Your task to perform on an android device: Open Yahoo.com Image 0: 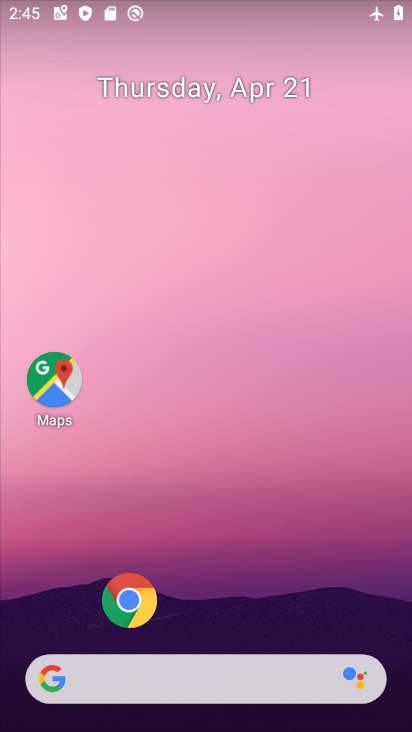
Step 0: drag from (254, 1) to (266, 500)
Your task to perform on an android device: Open Yahoo.com Image 1: 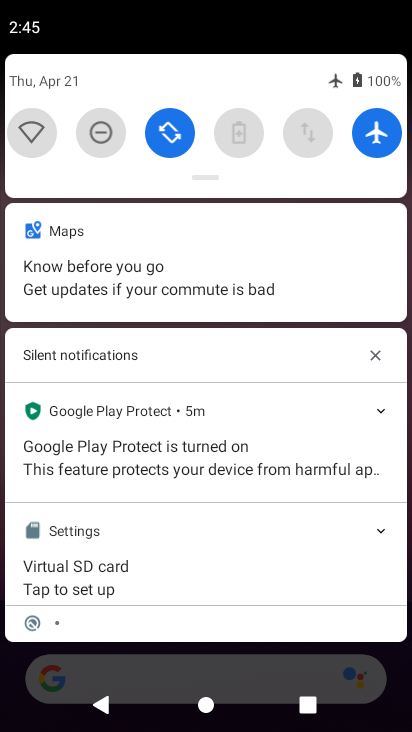
Step 1: click (364, 146)
Your task to perform on an android device: Open Yahoo.com Image 2: 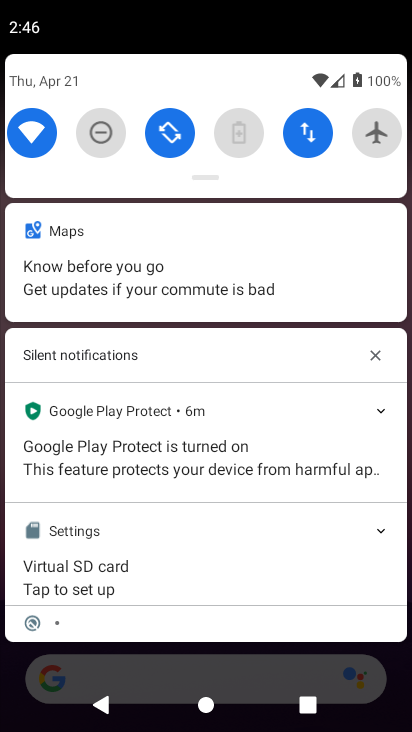
Step 2: press back button
Your task to perform on an android device: Open Yahoo.com Image 3: 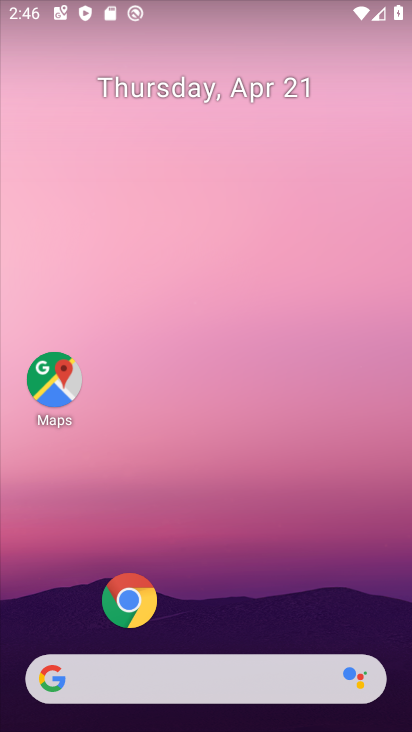
Step 3: click (137, 605)
Your task to perform on an android device: Open Yahoo.com Image 4: 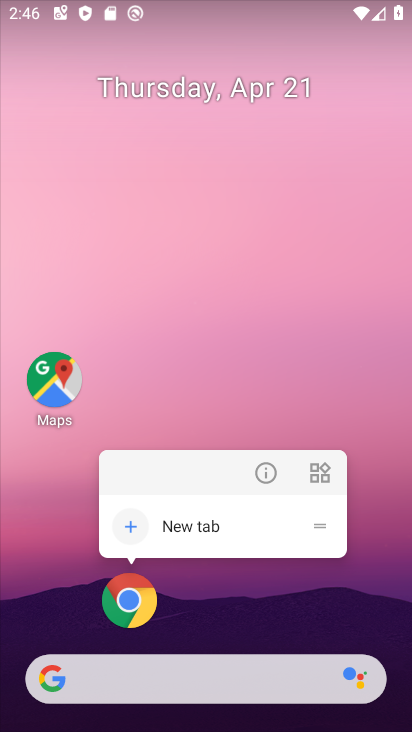
Step 4: click (137, 604)
Your task to perform on an android device: Open Yahoo.com Image 5: 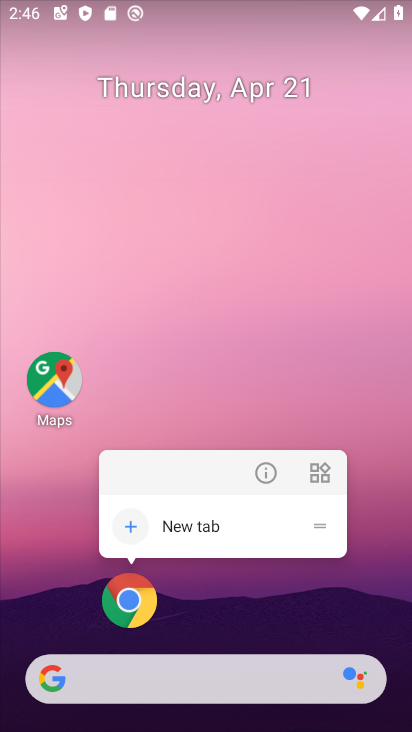
Step 5: click (136, 597)
Your task to perform on an android device: Open Yahoo.com Image 6: 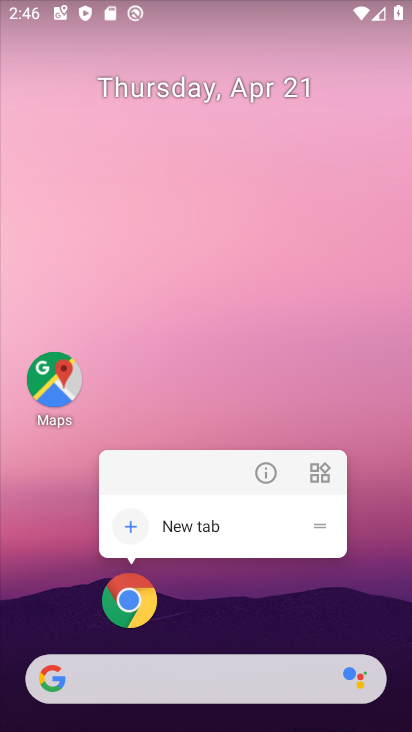
Step 6: click (123, 603)
Your task to perform on an android device: Open Yahoo.com Image 7: 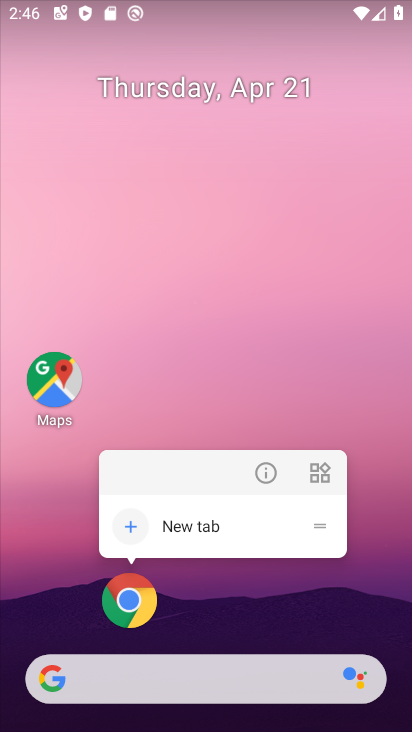
Step 7: click (123, 603)
Your task to perform on an android device: Open Yahoo.com Image 8: 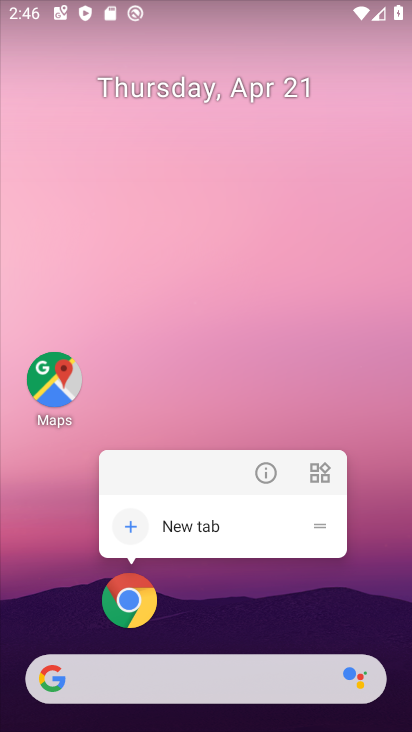
Step 8: click (128, 595)
Your task to perform on an android device: Open Yahoo.com Image 9: 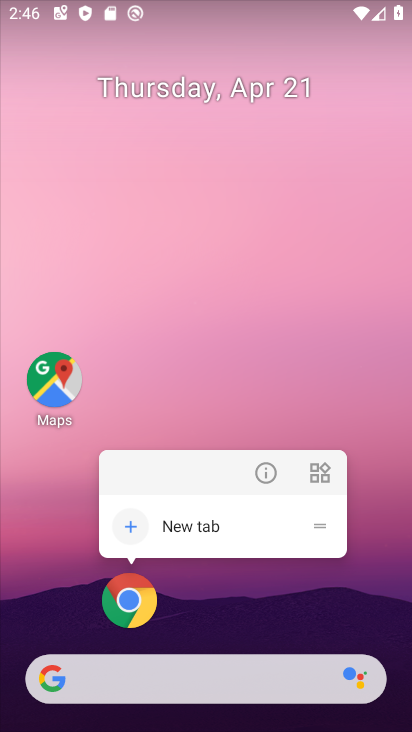
Step 9: click (128, 595)
Your task to perform on an android device: Open Yahoo.com Image 10: 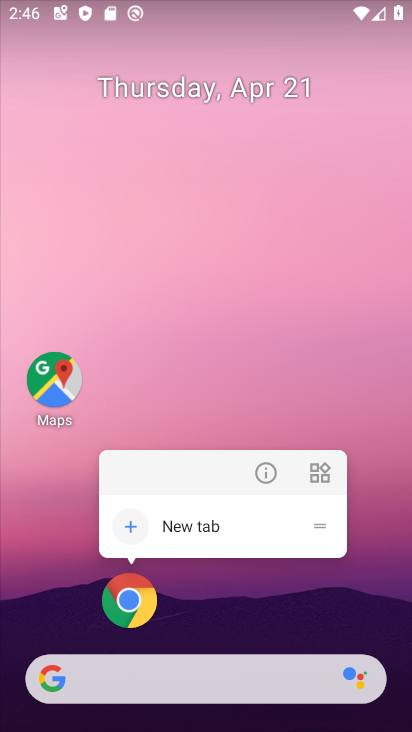
Step 10: click (128, 595)
Your task to perform on an android device: Open Yahoo.com Image 11: 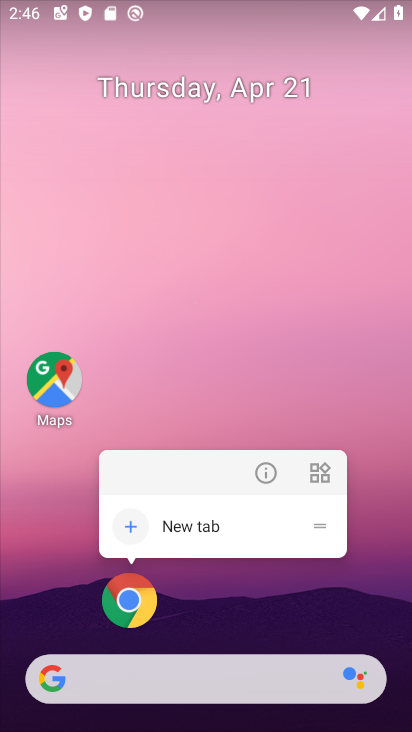
Step 11: click (128, 595)
Your task to perform on an android device: Open Yahoo.com Image 12: 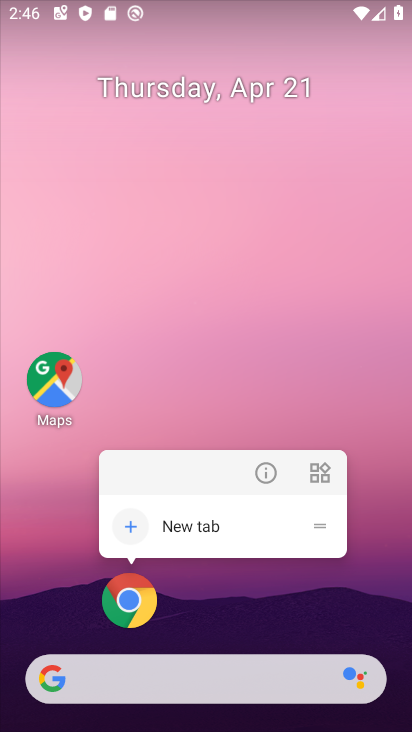
Step 12: click (128, 595)
Your task to perform on an android device: Open Yahoo.com Image 13: 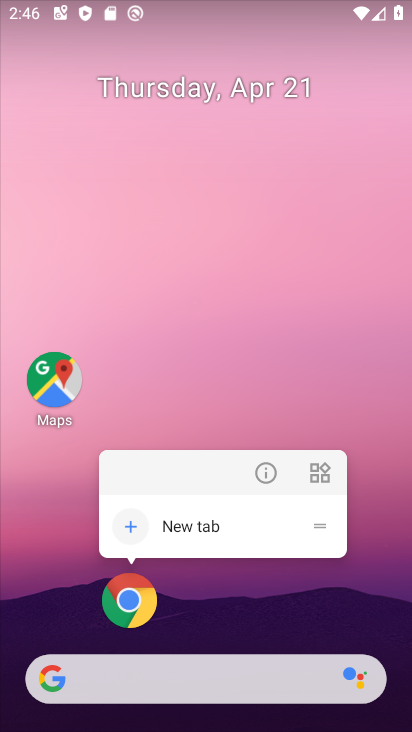
Step 13: click (127, 596)
Your task to perform on an android device: Open Yahoo.com Image 14: 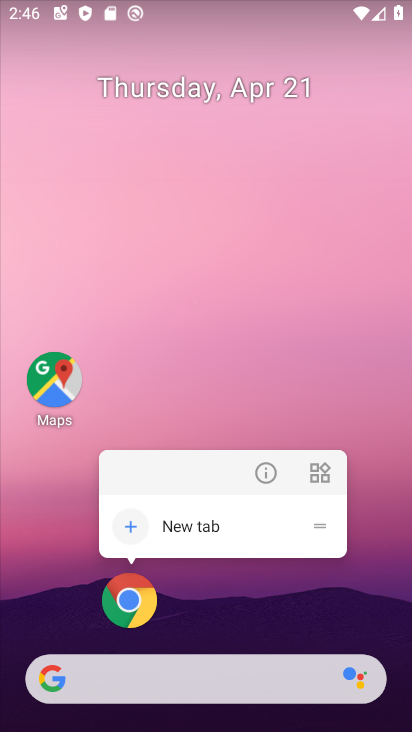
Step 14: click (262, 472)
Your task to perform on an android device: Open Yahoo.com Image 15: 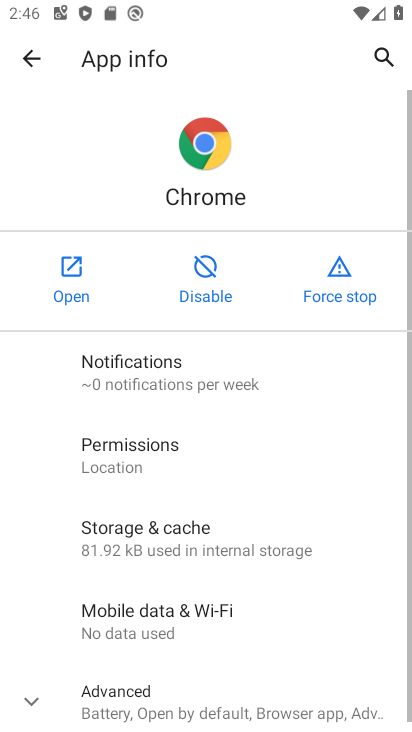
Step 15: click (79, 283)
Your task to perform on an android device: Open Yahoo.com Image 16: 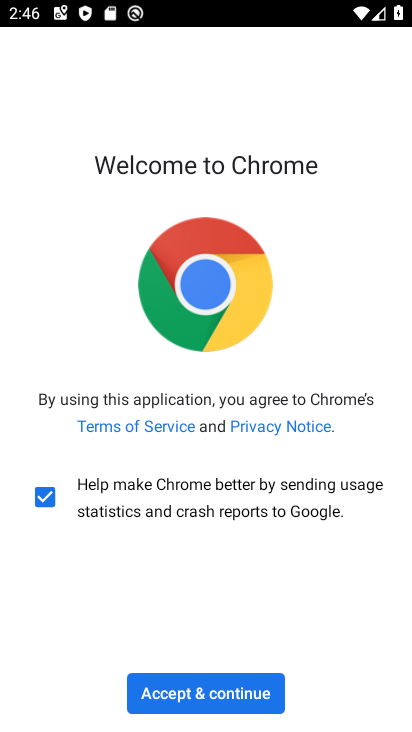
Step 16: click (168, 702)
Your task to perform on an android device: Open Yahoo.com Image 17: 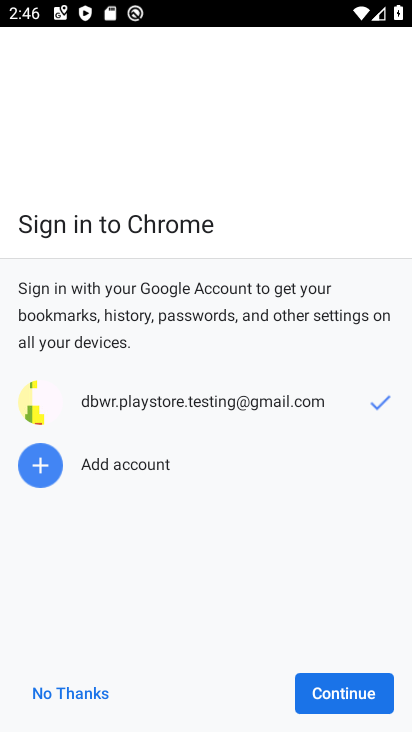
Step 17: click (330, 693)
Your task to perform on an android device: Open Yahoo.com Image 18: 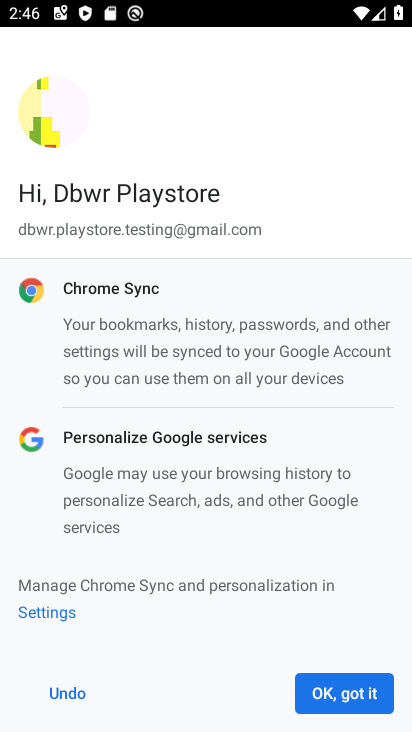
Step 18: click (73, 691)
Your task to perform on an android device: Open Yahoo.com Image 19: 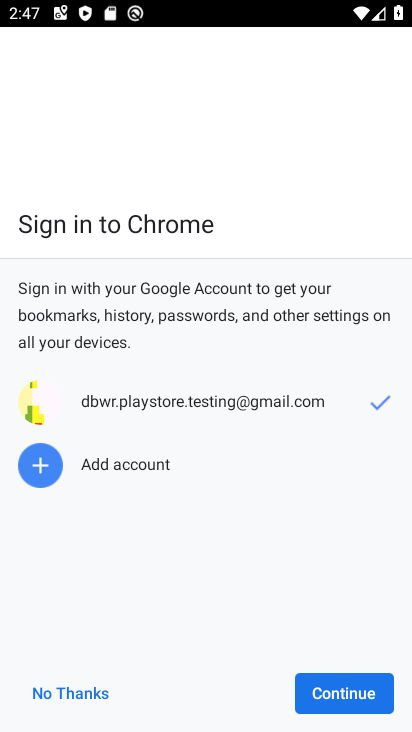
Step 19: click (68, 692)
Your task to perform on an android device: Open Yahoo.com Image 20: 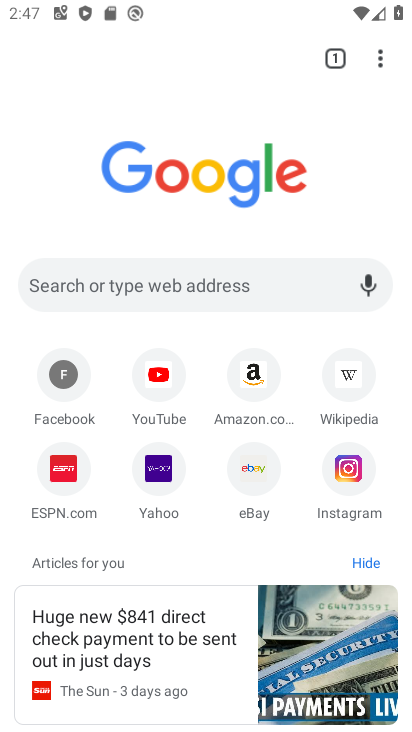
Step 20: click (159, 467)
Your task to perform on an android device: Open Yahoo.com Image 21: 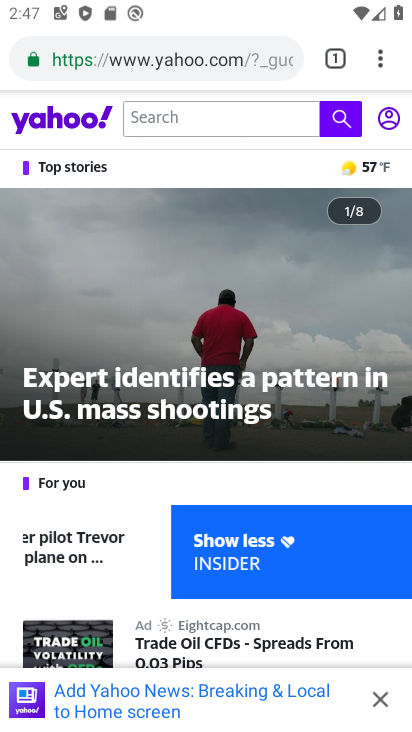
Step 21: task complete